Your task to perform on an android device: set default search engine in the chrome app Image 0: 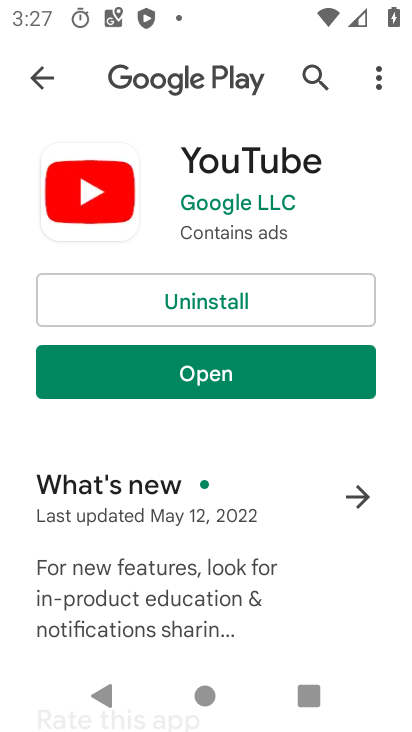
Step 0: press home button
Your task to perform on an android device: set default search engine in the chrome app Image 1: 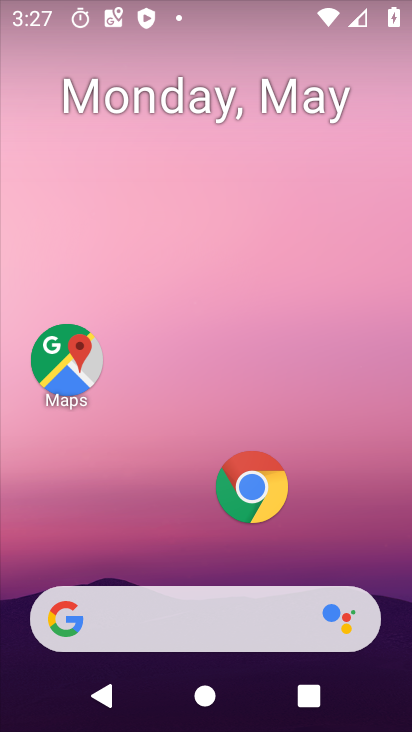
Step 1: click (255, 487)
Your task to perform on an android device: set default search engine in the chrome app Image 2: 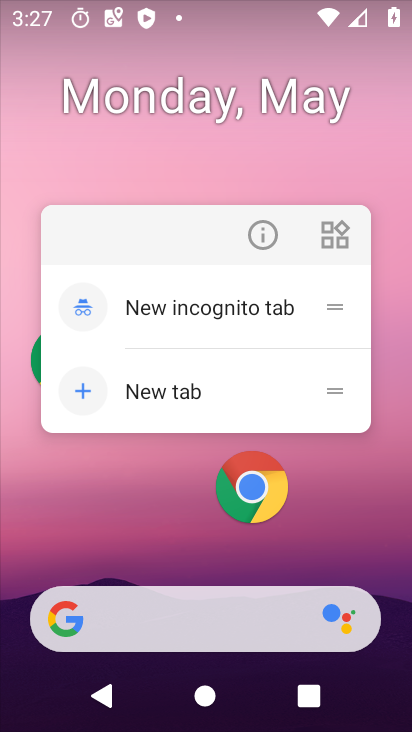
Step 2: click (237, 488)
Your task to perform on an android device: set default search engine in the chrome app Image 3: 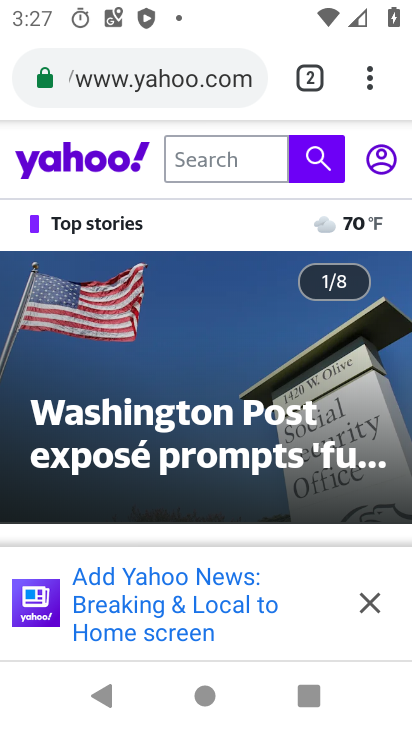
Step 3: click (374, 71)
Your task to perform on an android device: set default search engine in the chrome app Image 4: 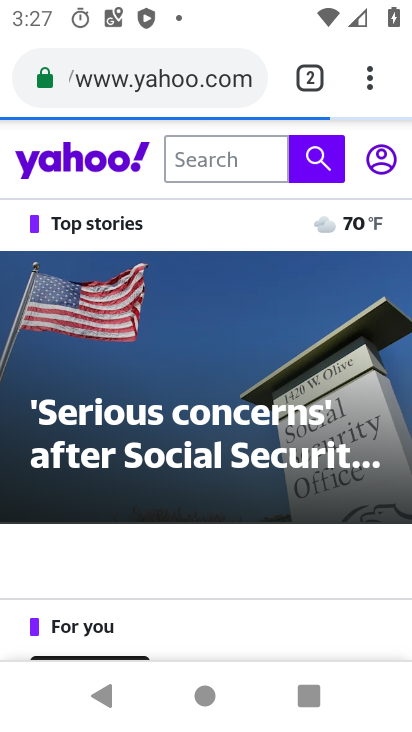
Step 4: click (377, 84)
Your task to perform on an android device: set default search engine in the chrome app Image 5: 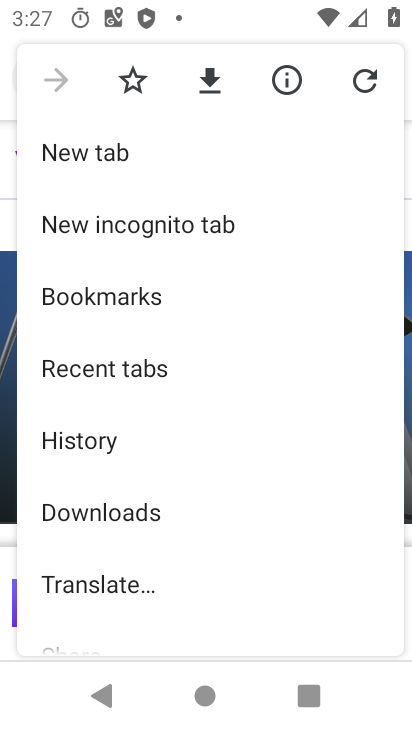
Step 5: drag from (133, 565) to (138, 360)
Your task to perform on an android device: set default search engine in the chrome app Image 6: 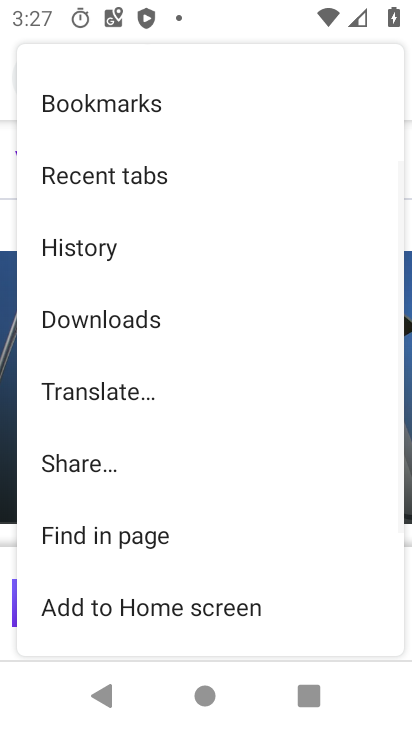
Step 6: drag from (109, 576) to (152, 288)
Your task to perform on an android device: set default search engine in the chrome app Image 7: 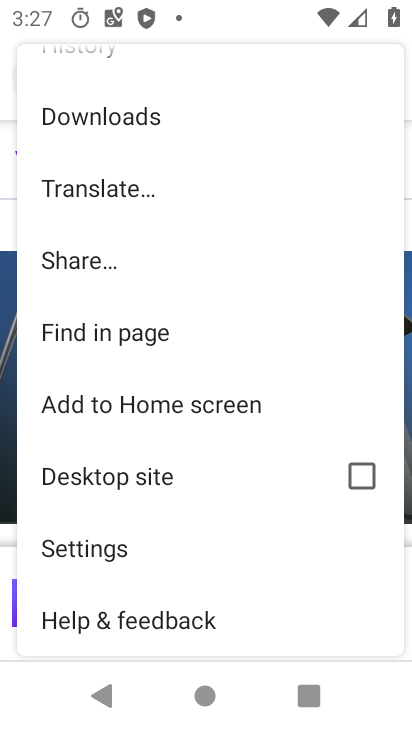
Step 7: click (130, 550)
Your task to perform on an android device: set default search engine in the chrome app Image 8: 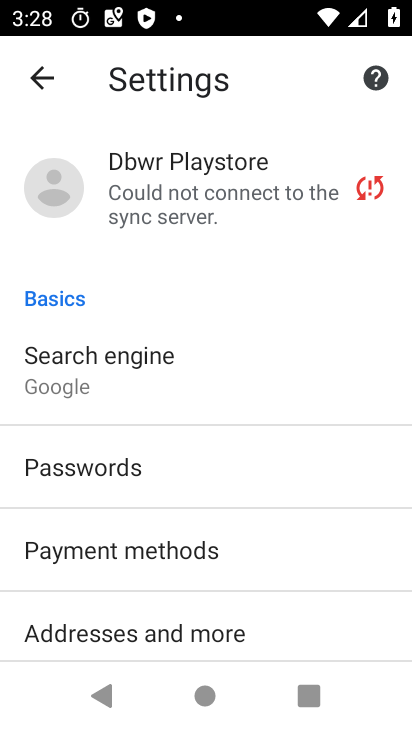
Step 8: click (82, 360)
Your task to perform on an android device: set default search engine in the chrome app Image 9: 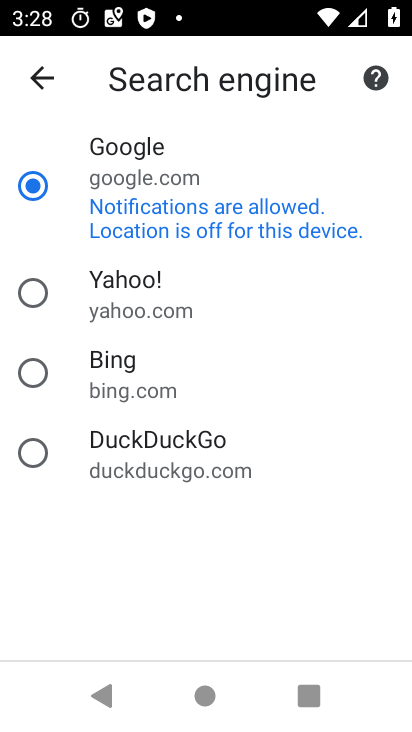
Step 9: click (146, 303)
Your task to perform on an android device: set default search engine in the chrome app Image 10: 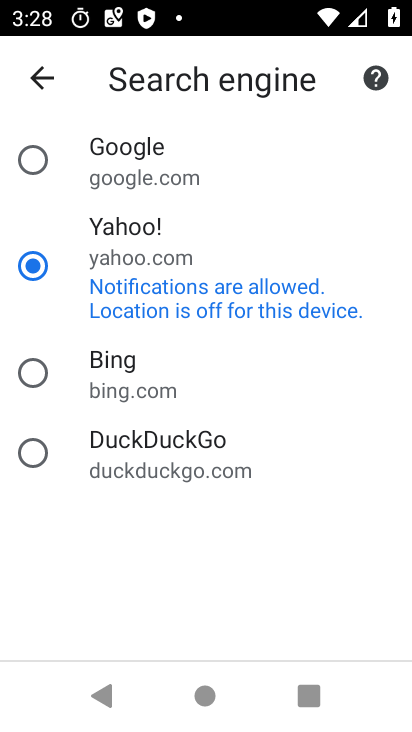
Step 10: task complete